Your task to perform on an android device: toggle wifi Image 0: 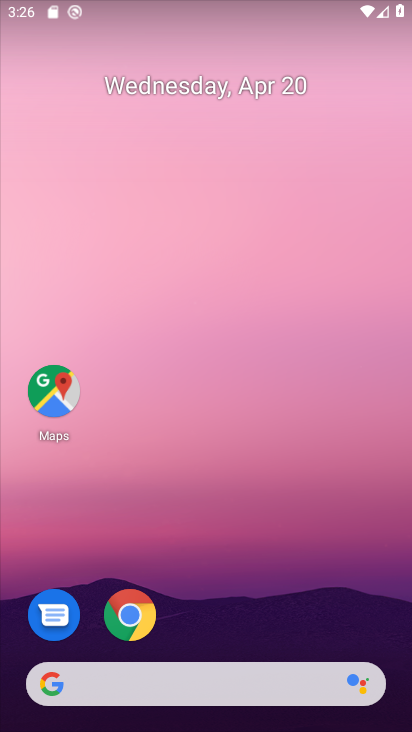
Step 0: drag from (225, 609) to (203, 149)
Your task to perform on an android device: toggle wifi Image 1: 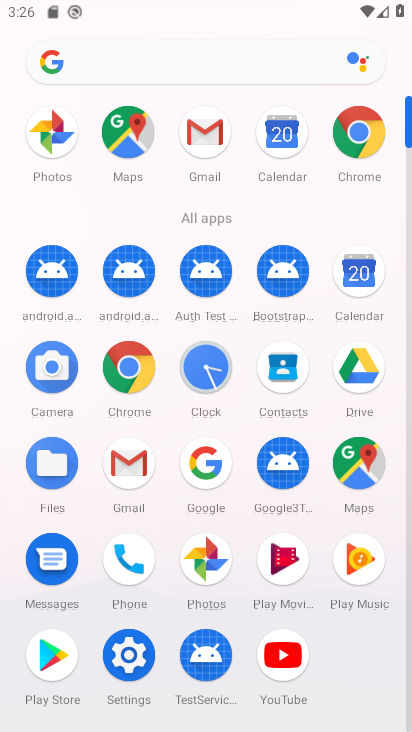
Step 1: click (139, 646)
Your task to perform on an android device: toggle wifi Image 2: 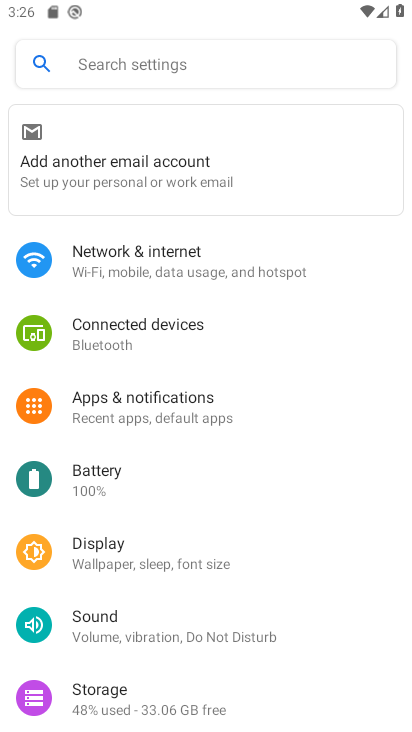
Step 2: click (112, 267)
Your task to perform on an android device: toggle wifi Image 3: 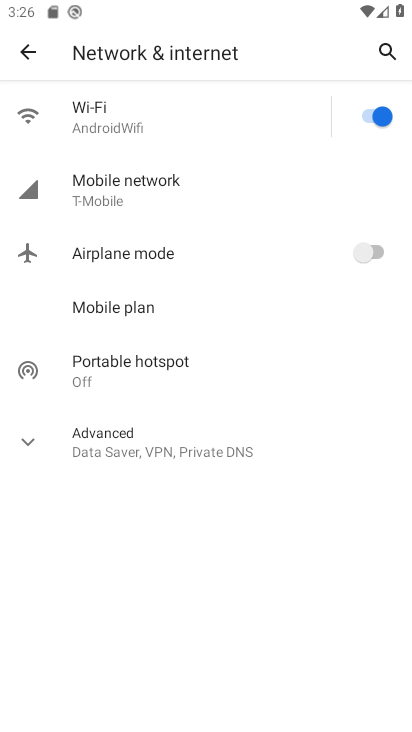
Step 3: click (359, 115)
Your task to perform on an android device: toggle wifi Image 4: 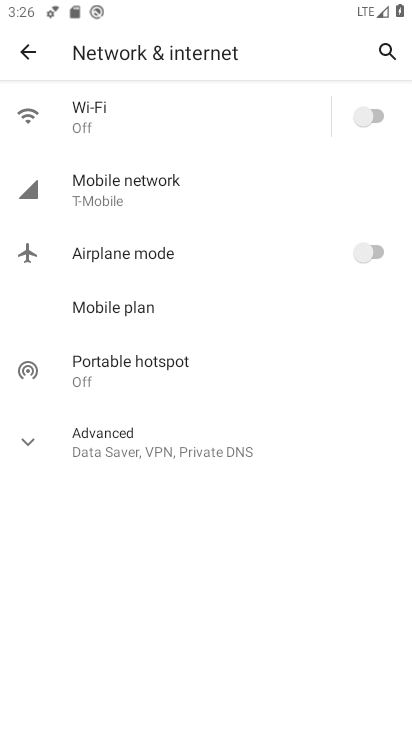
Step 4: task complete